Your task to perform on an android device: turn off location history Image 0: 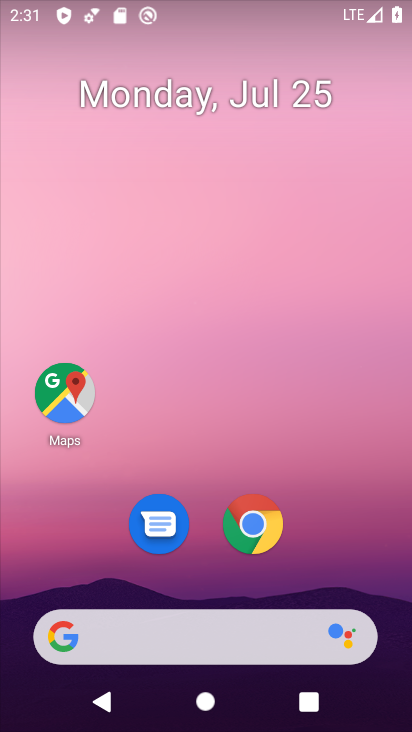
Step 0: drag from (339, 545) to (352, 8)
Your task to perform on an android device: turn off location history Image 1: 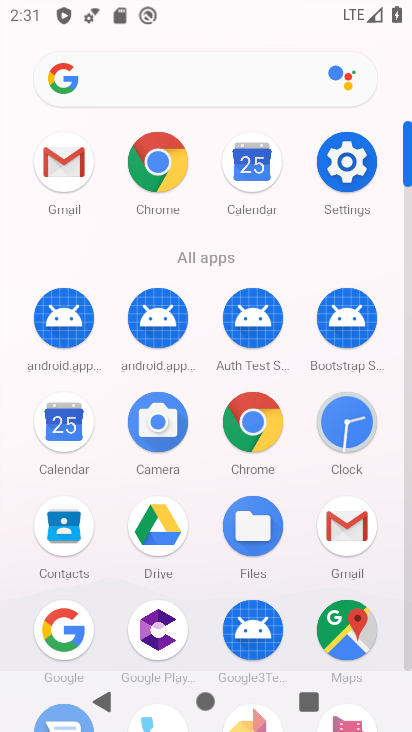
Step 1: click (334, 156)
Your task to perform on an android device: turn off location history Image 2: 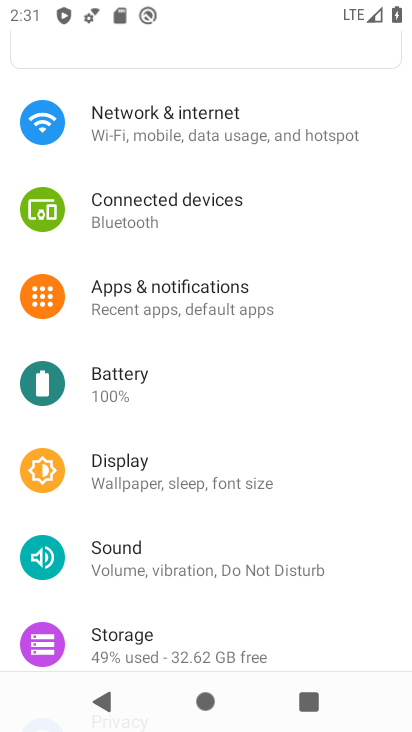
Step 2: drag from (238, 510) to (237, 111)
Your task to perform on an android device: turn off location history Image 3: 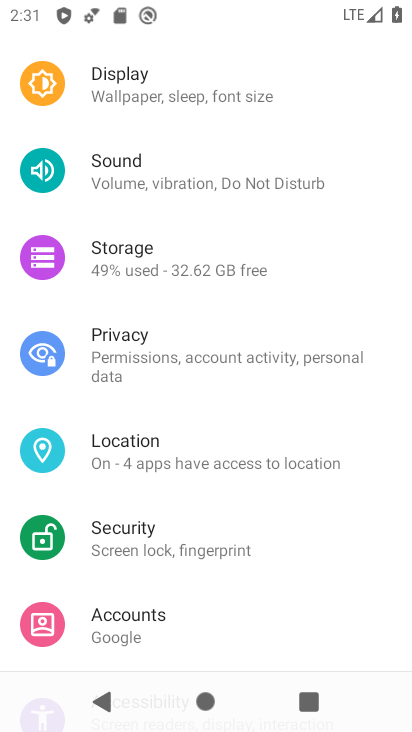
Step 3: click (212, 459)
Your task to perform on an android device: turn off location history Image 4: 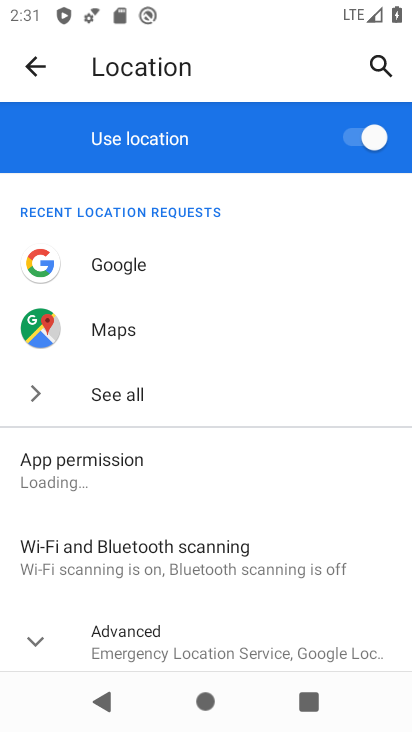
Step 4: drag from (200, 591) to (216, 199)
Your task to perform on an android device: turn off location history Image 5: 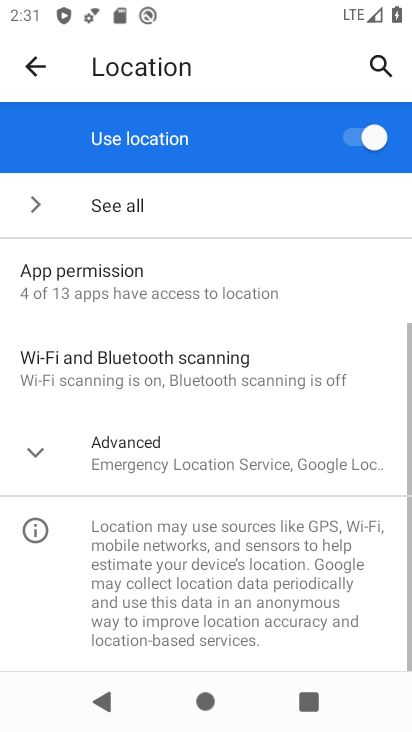
Step 5: click (44, 450)
Your task to perform on an android device: turn off location history Image 6: 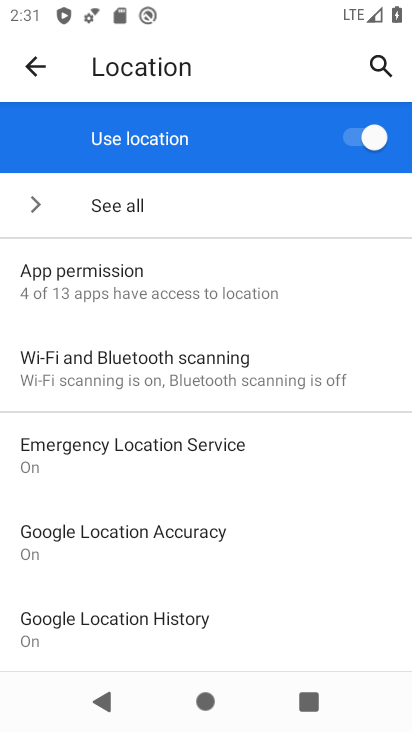
Step 6: click (194, 628)
Your task to perform on an android device: turn off location history Image 7: 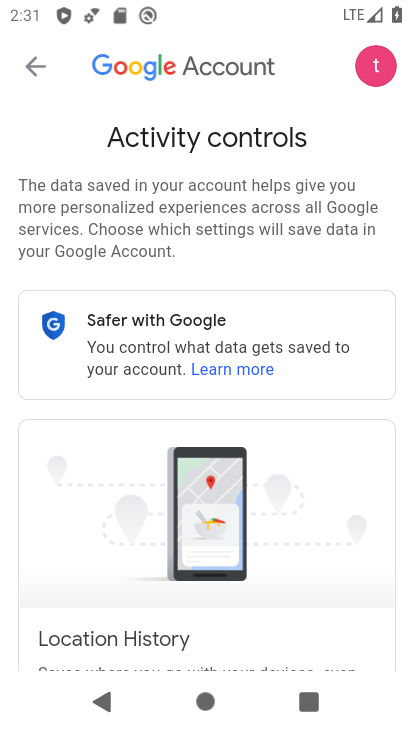
Step 7: drag from (324, 519) to (311, 108)
Your task to perform on an android device: turn off location history Image 8: 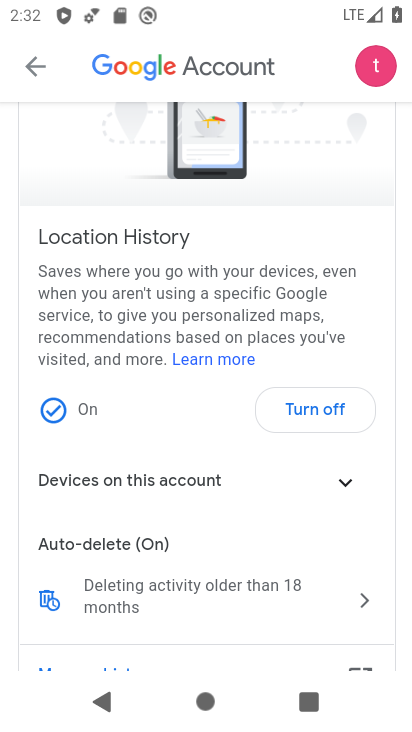
Step 8: click (313, 411)
Your task to perform on an android device: turn off location history Image 9: 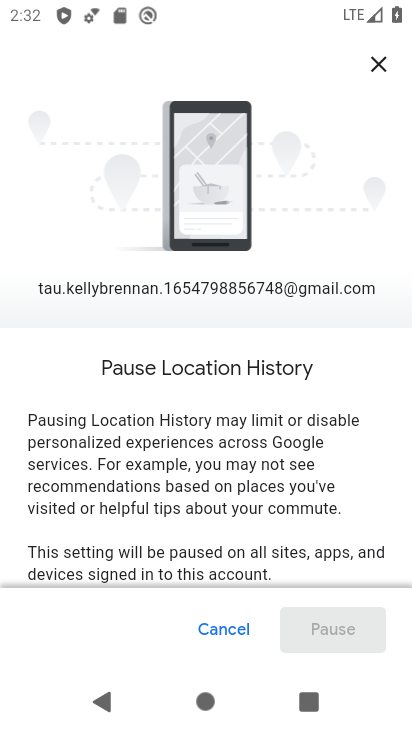
Step 9: drag from (298, 516) to (280, 131)
Your task to perform on an android device: turn off location history Image 10: 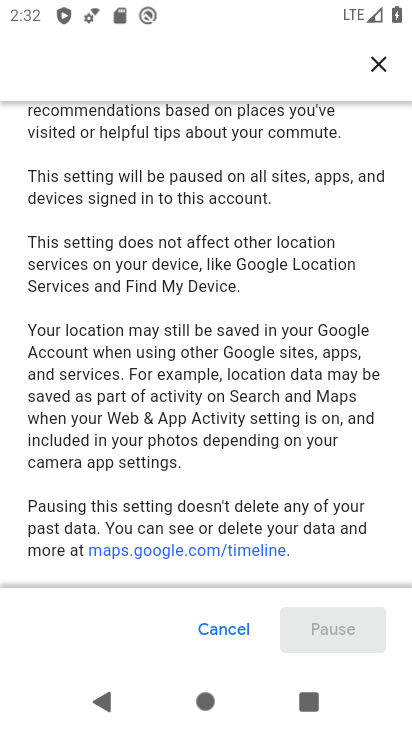
Step 10: drag from (235, 514) to (232, 96)
Your task to perform on an android device: turn off location history Image 11: 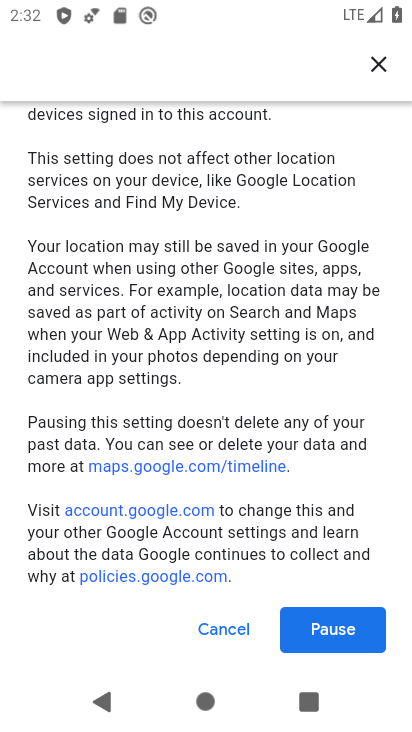
Step 11: click (336, 623)
Your task to perform on an android device: turn off location history Image 12: 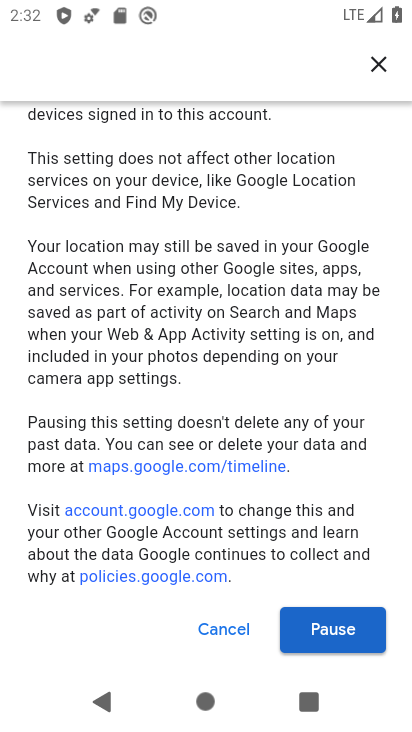
Step 12: click (359, 630)
Your task to perform on an android device: turn off location history Image 13: 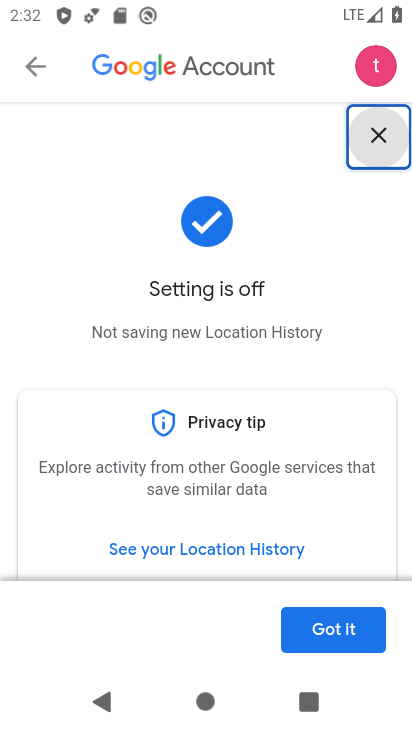
Step 13: click (346, 638)
Your task to perform on an android device: turn off location history Image 14: 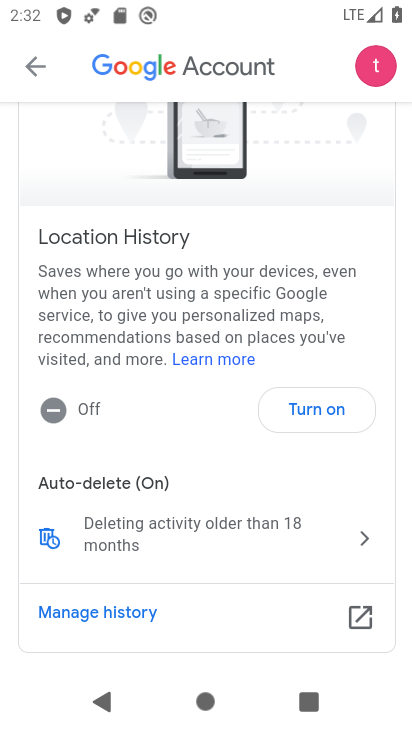
Step 14: task complete